Your task to perform on an android device: What time is it in Berlin? Image 0: 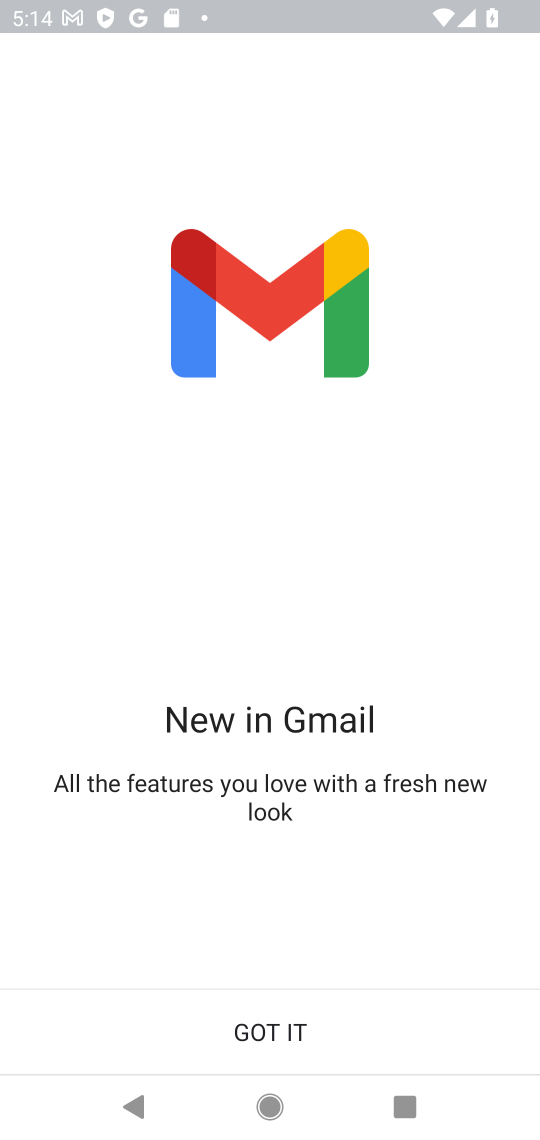
Step 0: press home button
Your task to perform on an android device: What time is it in Berlin? Image 1: 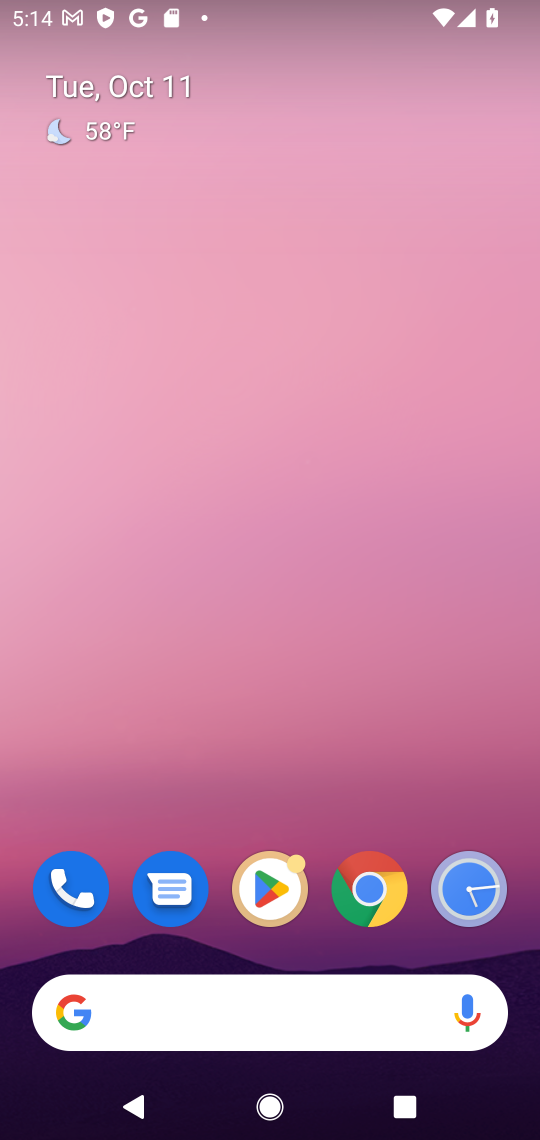
Step 1: drag from (288, 930) to (298, 300)
Your task to perform on an android device: What time is it in Berlin? Image 2: 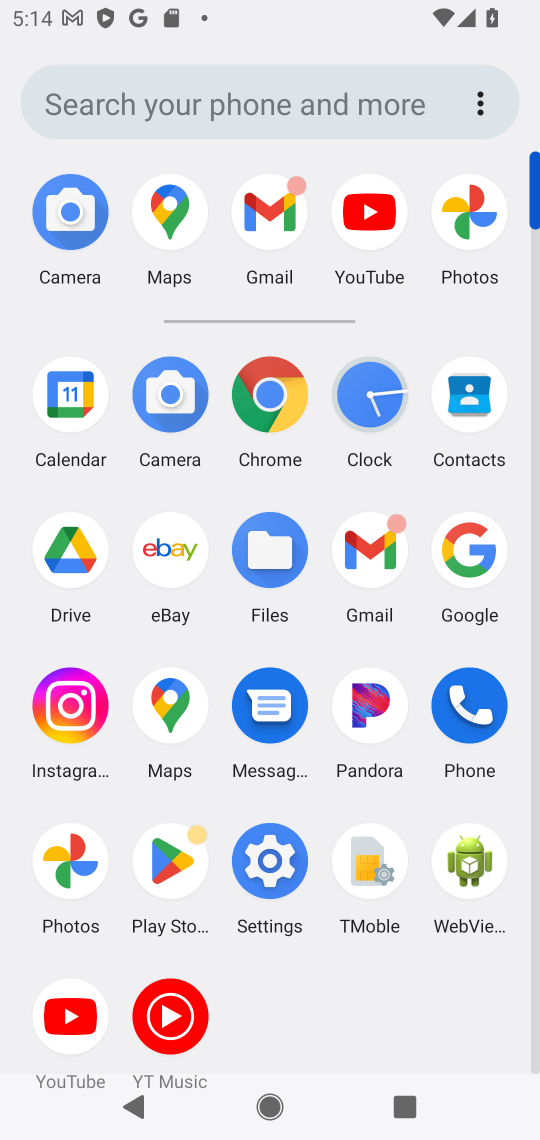
Step 2: click (458, 540)
Your task to perform on an android device: What time is it in Berlin? Image 3: 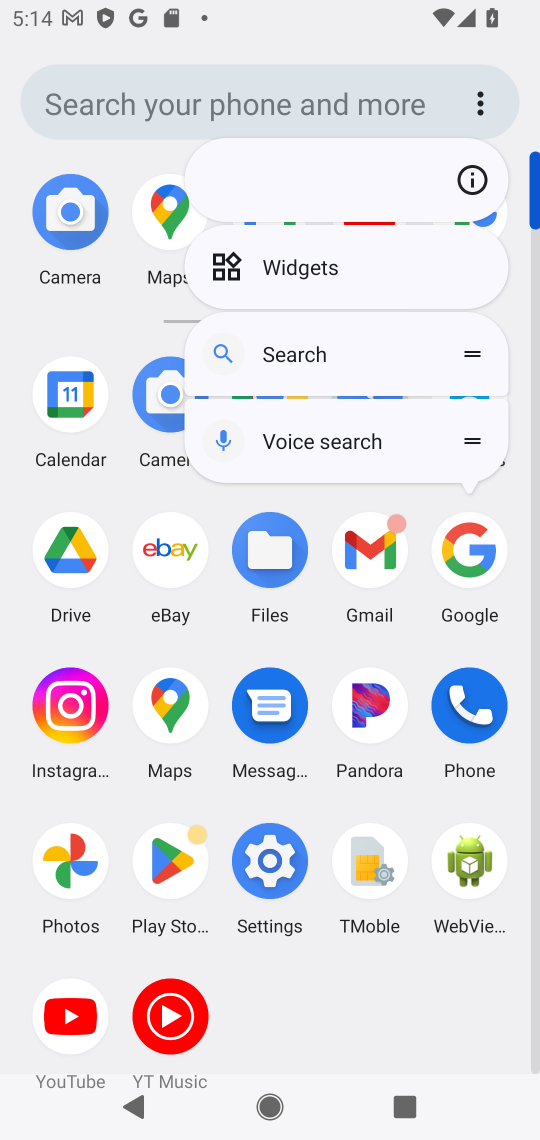
Step 3: click (455, 548)
Your task to perform on an android device: What time is it in Berlin? Image 4: 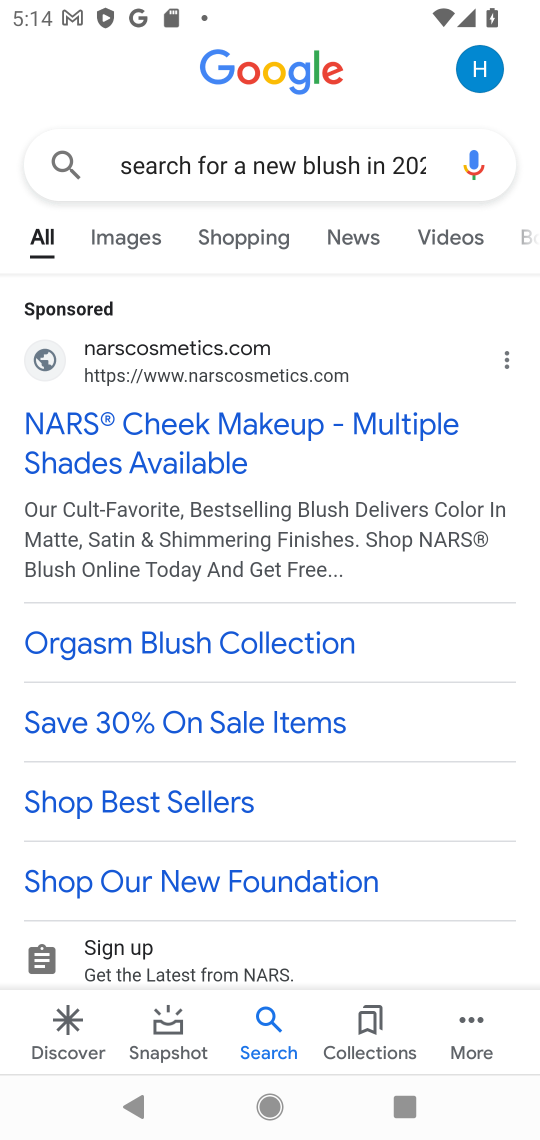
Step 4: click (326, 163)
Your task to perform on an android device: What time is it in Berlin? Image 5: 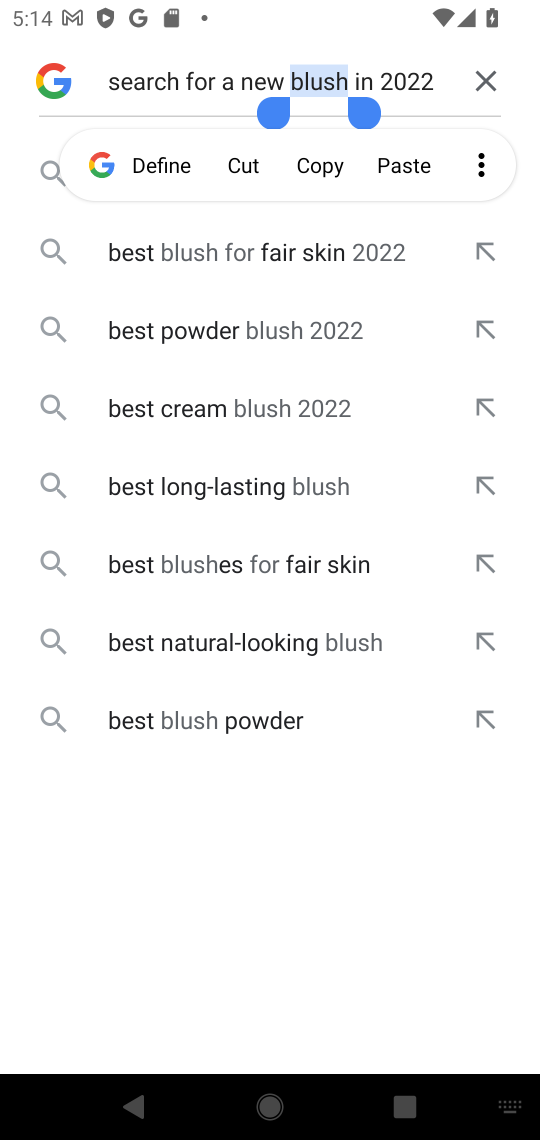
Step 5: click (478, 71)
Your task to perform on an android device: What time is it in Berlin? Image 6: 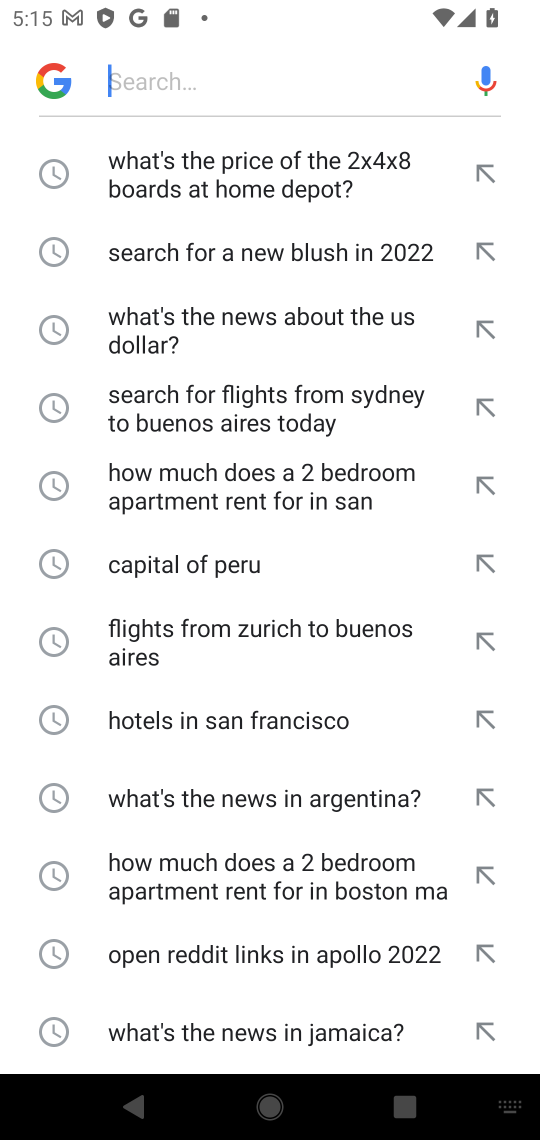
Step 6: click (263, 79)
Your task to perform on an android device: What time is it in Berlin? Image 7: 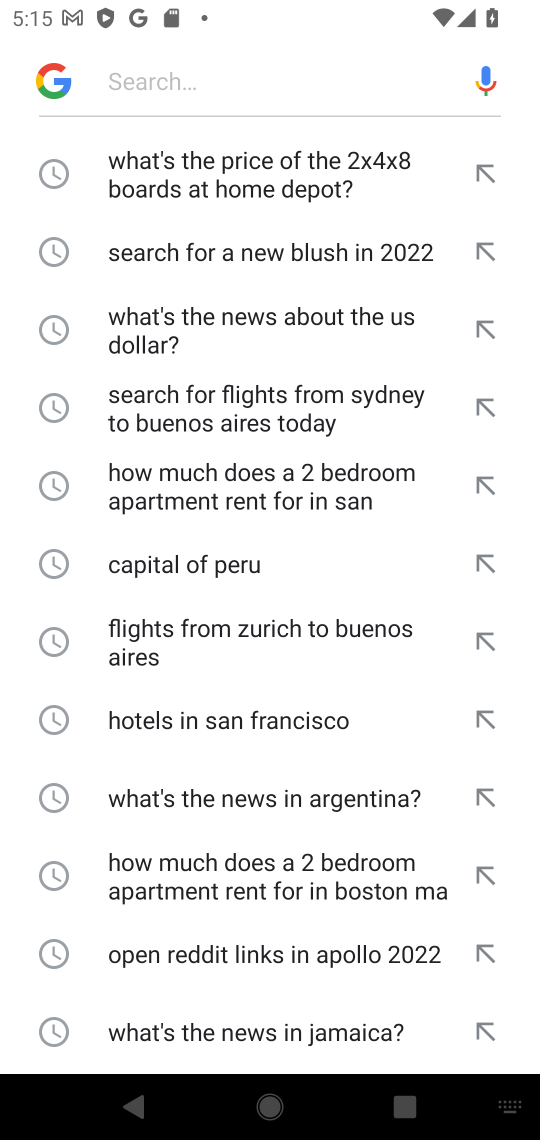
Step 7: type "What time is it in Berlin "
Your task to perform on an android device: What time is it in Berlin? Image 8: 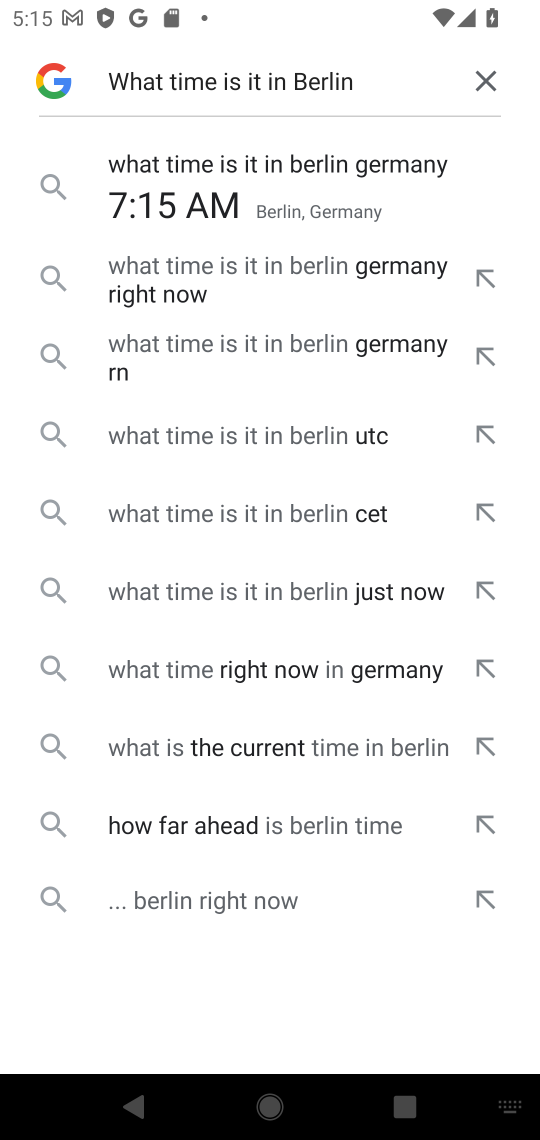
Step 8: click (314, 188)
Your task to perform on an android device: What time is it in Berlin? Image 9: 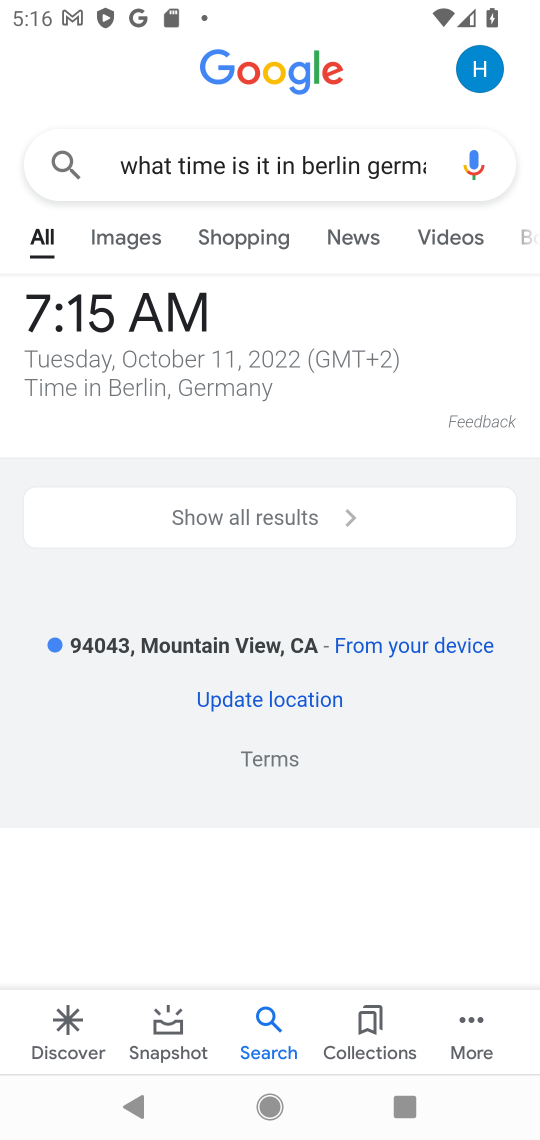
Step 9: task complete